Your task to perform on an android device: Is it going to rain tomorrow? Image 0: 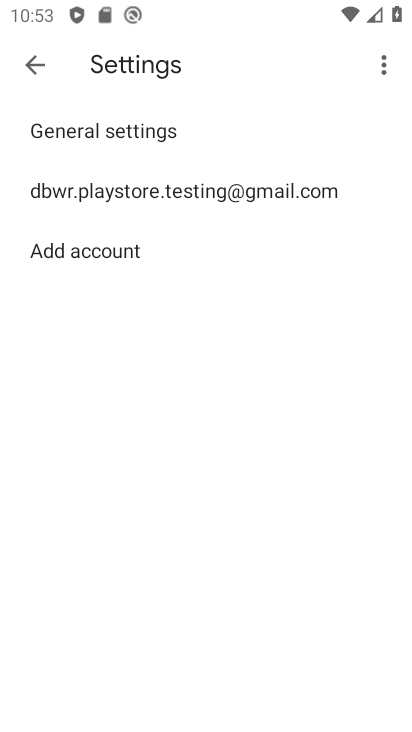
Step 0: press back button
Your task to perform on an android device: Is it going to rain tomorrow? Image 1: 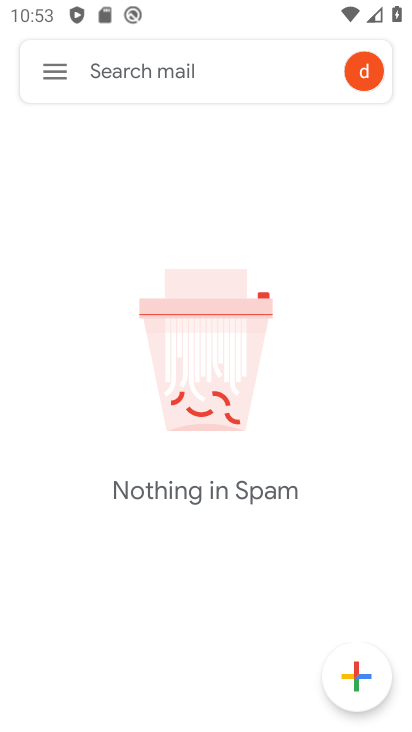
Step 1: press back button
Your task to perform on an android device: Is it going to rain tomorrow? Image 2: 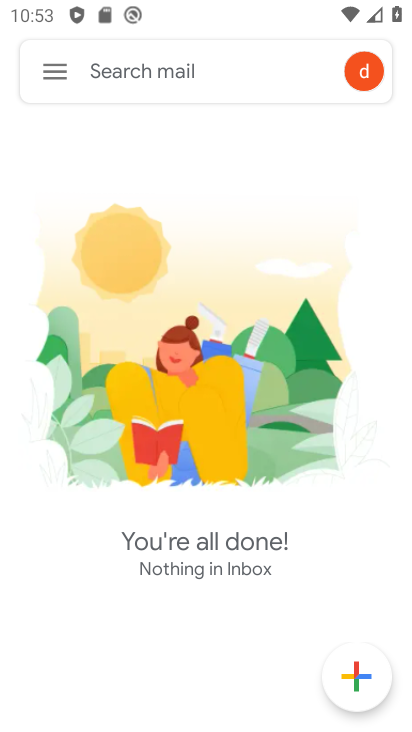
Step 2: press back button
Your task to perform on an android device: Is it going to rain tomorrow? Image 3: 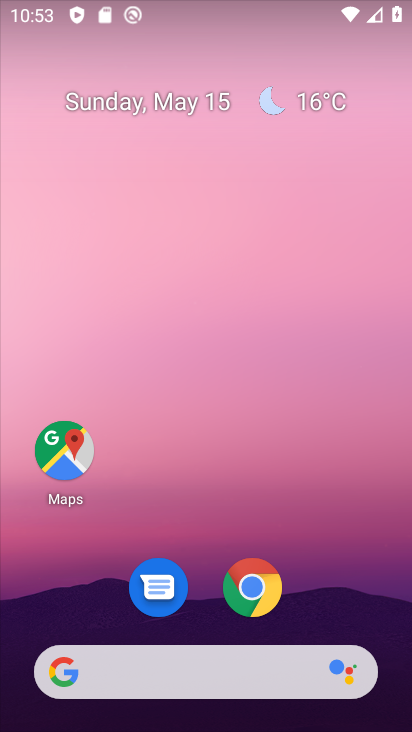
Step 3: drag from (279, 535) to (258, 36)
Your task to perform on an android device: Is it going to rain tomorrow? Image 4: 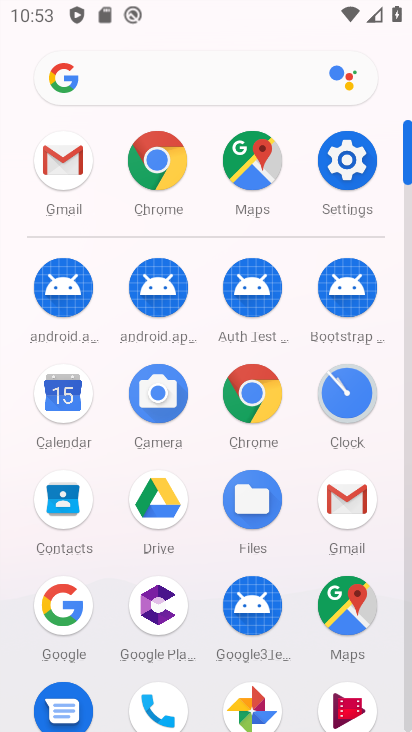
Step 4: drag from (9, 592) to (9, 347)
Your task to perform on an android device: Is it going to rain tomorrow? Image 5: 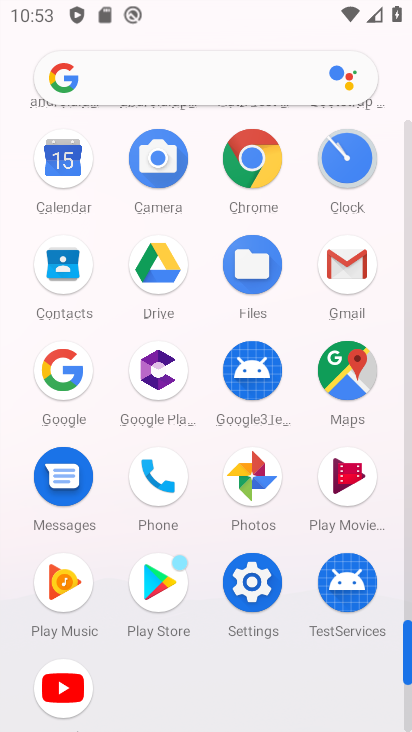
Step 5: click (253, 147)
Your task to perform on an android device: Is it going to rain tomorrow? Image 6: 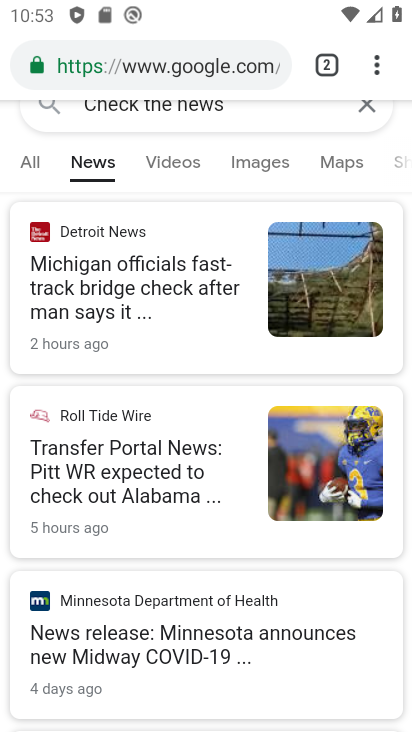
Step 6: click (186, 50)
Your task to perform on an android device: Is it going to rain tomorrow? Image 7: 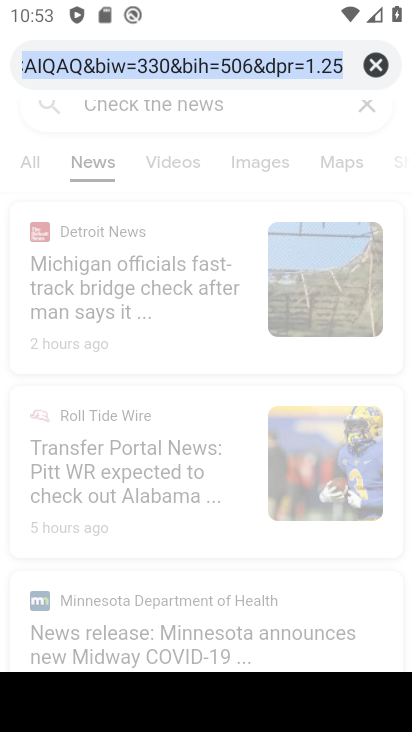
Step 7: click (381, 63)
Your task to perform on an android device: Is it going to rain tomorrow? Image 8: 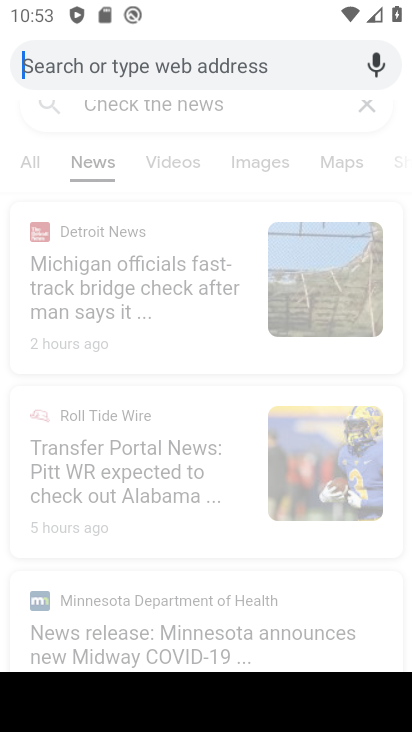
Step 8: type "Is it going to rain tomorrow?"
Your task to perform on an android device: Is it going to rain tomorrow? Image 9: 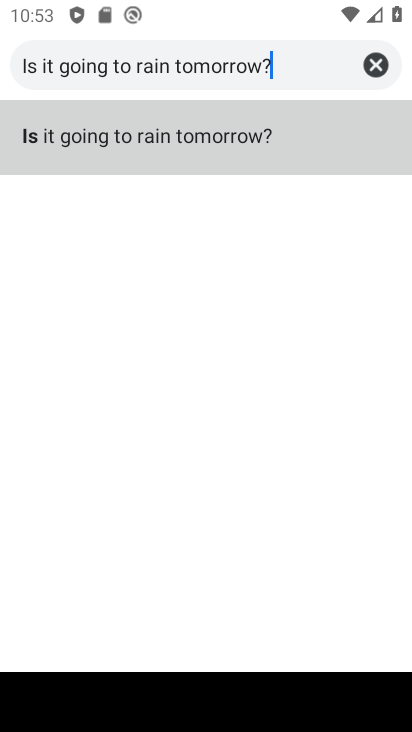
Step 9: type ""
Your task to perform on an android device: Is it going to rain tomorrow? Image 10: 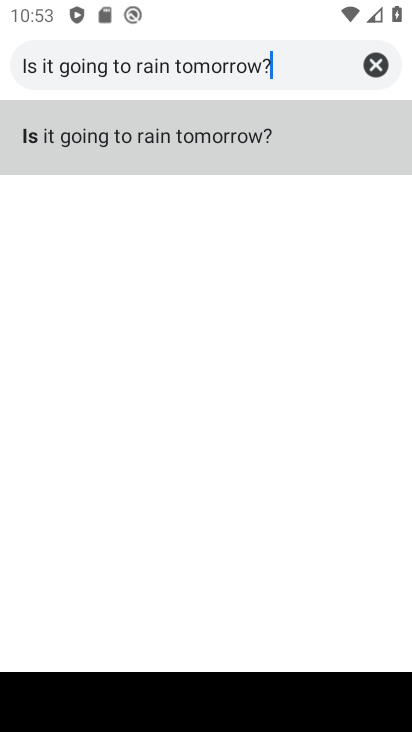
Step 10: click (230, 123)
Your task to perform on an android device: Is it going to rain tomorrow? Image 11: 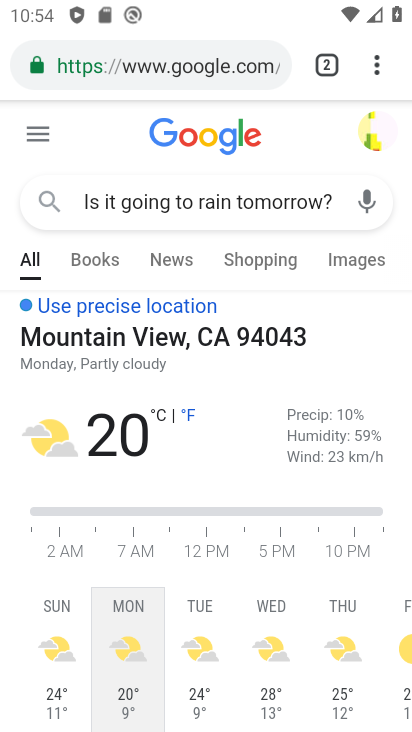
Step 11: task complete